Your task to perform on an android device: clear all cookies in the chrome app Image 0: 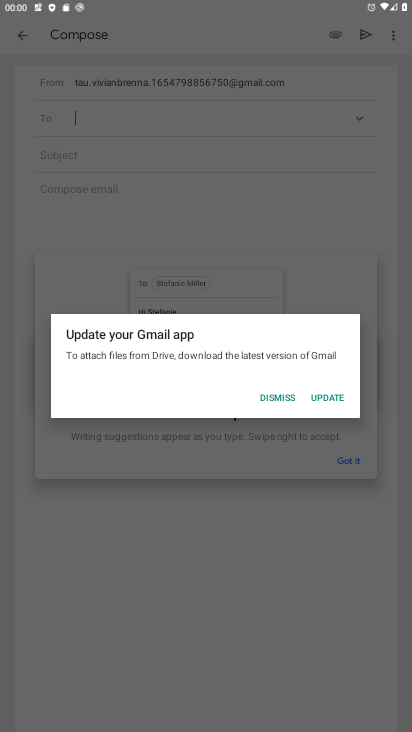
Step 0: press home button
Your task to perform on an android device: clear all cookies in the chrome app Image 1: 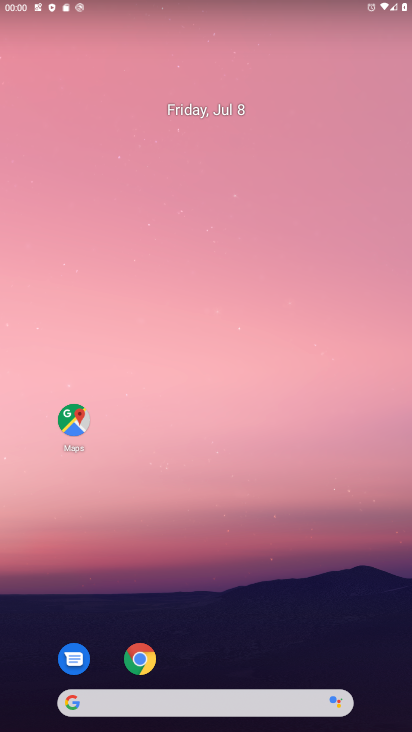
Step 1: click (142, 657)
Your task to perform on an android device: clear all cookies in the chrome app Image 2: 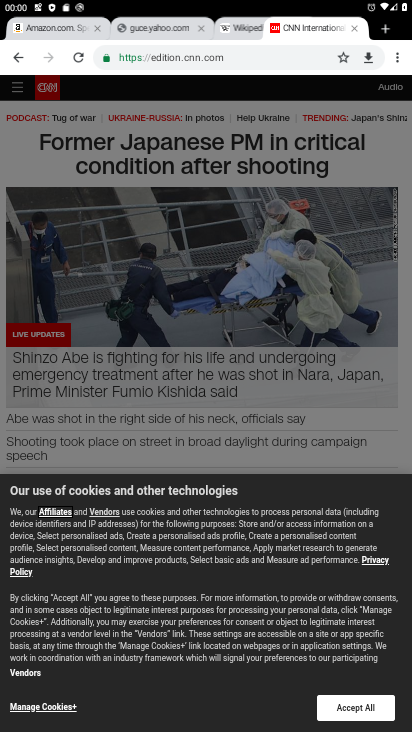
Step 2: click (402, 51)
Your task to perform on an android device: clear all cookies in the chrome app Image 3: 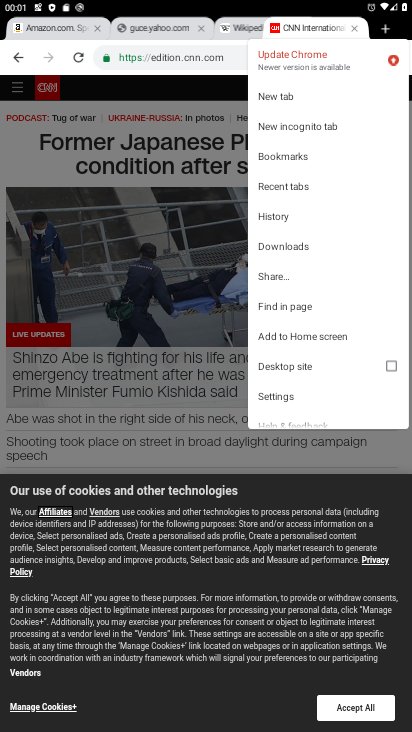
Step 3: click (287, 401)
Your task to perform on an android device: clear all cookies in the chrome app Image 4: 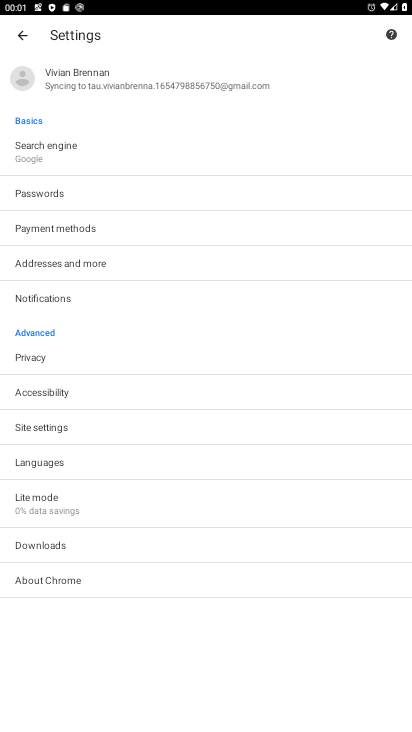
Step 4: click (22, 35)
Your task to perform on an android device: clear all cookies in the chrome app Image 5: 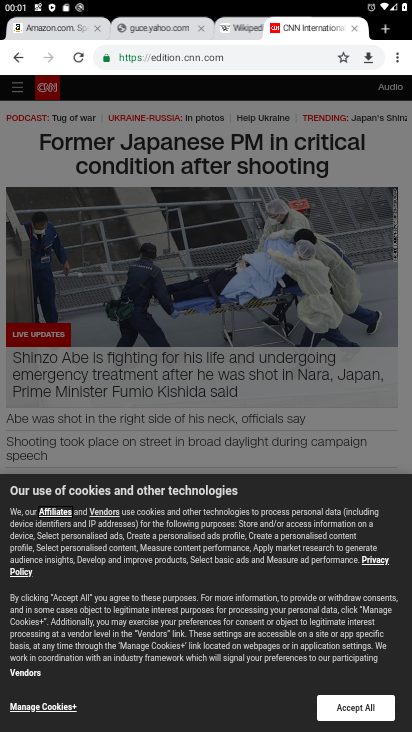
Step 5: click (406, 47)
Your task to perform on an android device: clear all cookies in the chrome app Image 6: 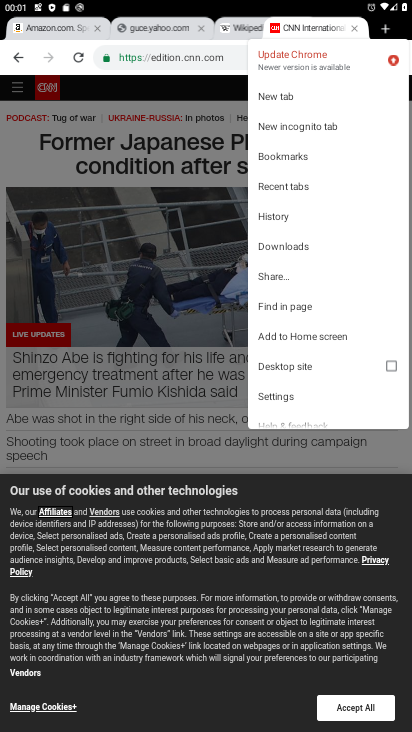
Step 6: click (275, 212)
Your task to perform on an android device: clear all cookies in the chrome app Image 7: 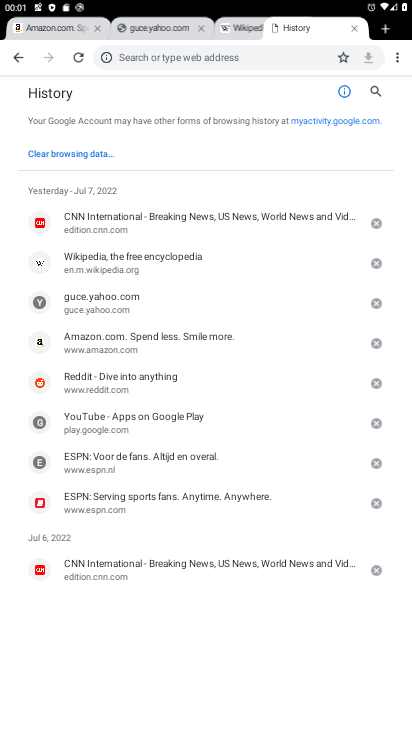
Step 7: click (48, 149)
Your task to perform on an android device: clear all cookies in the chrome app Image 8: 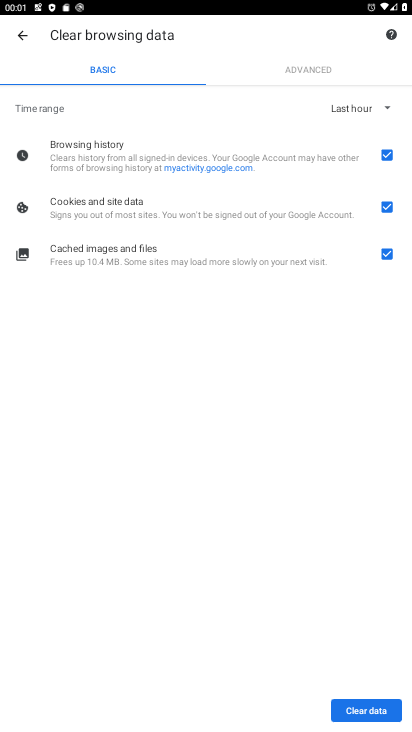
Step 8: click (385, 159)
Your task to perform on an android device: clear all cookies in the chrome app Image 9: 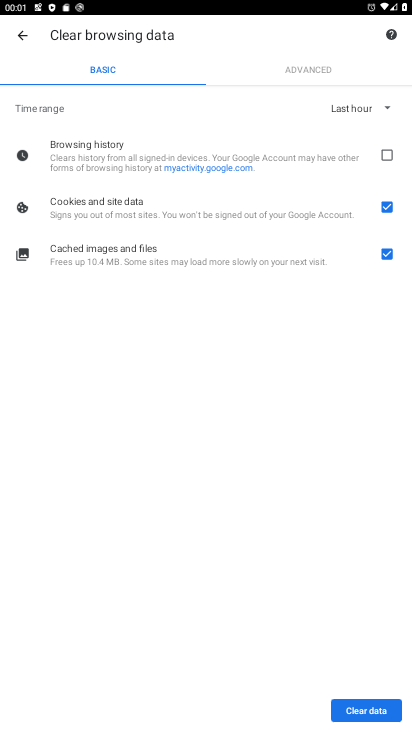
Step 9: click (389, 251)
Your task to perform on an android device: clear all cookies in the chrome app Image 10: 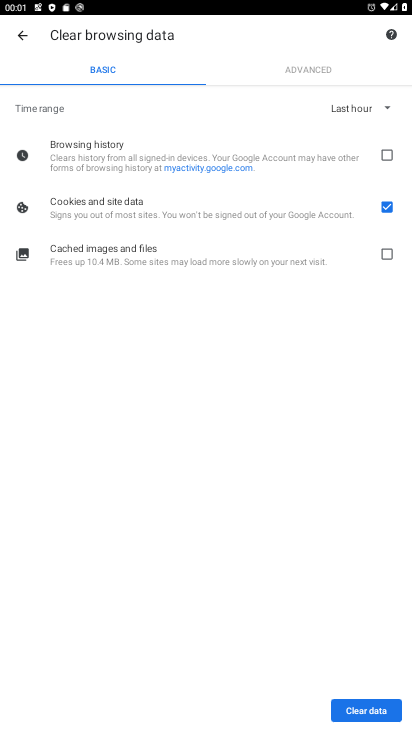
Step 10: click (365, 715)
Your task to perform on an android device: clear all cookies in the chrome app Image 11: 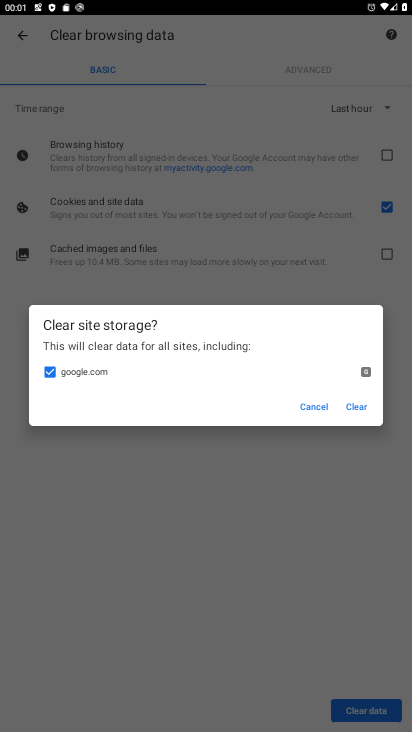
Step 11: click (348, 410)
Your task to perform on an android device: clear all cookies in the chrome app Image 12: 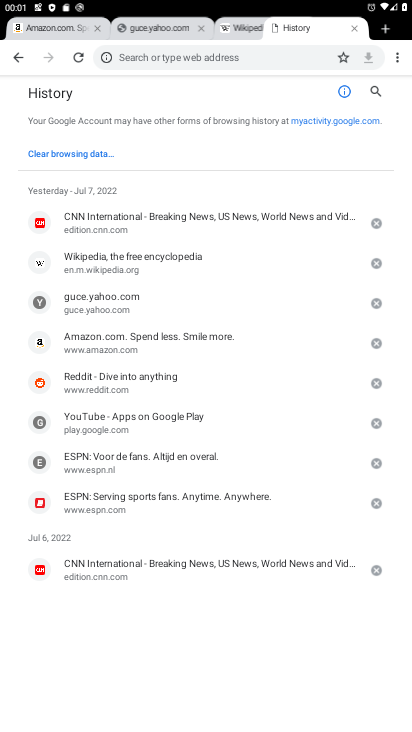
Step 12: task complete